Your task to perform on an android device: turn off location Image 0: 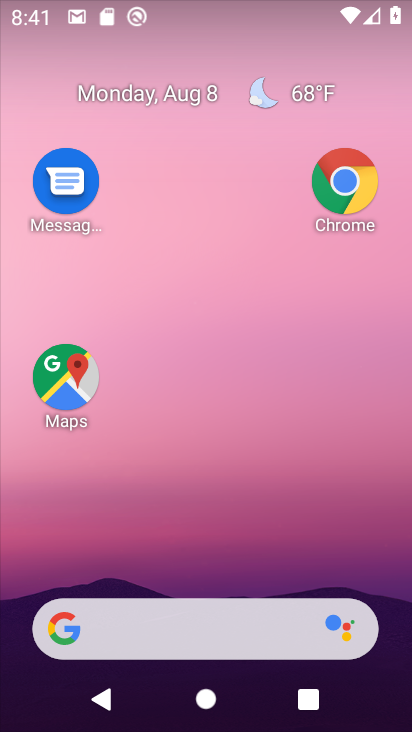
Step 0: drag from (274, 588) to (101, 74)
Your task to perform on an android device: turn off location Image 1: 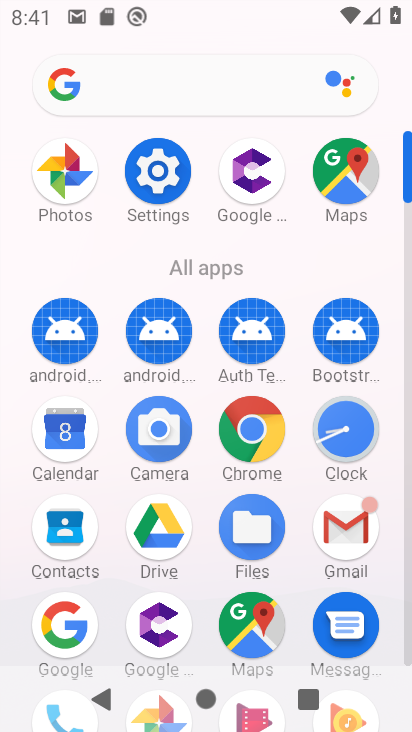
Step 1: click (158, 160)
Your task to perform on an android device: turn off location Image 2: 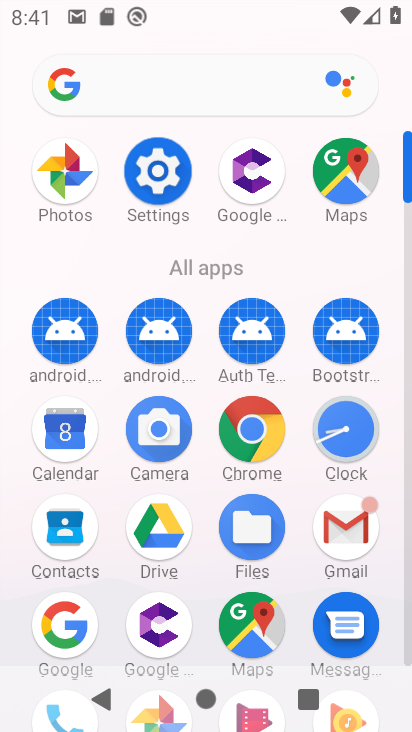
Step 2: click (158, 160)
Your task to perform on an android device: turn off location Image 3: 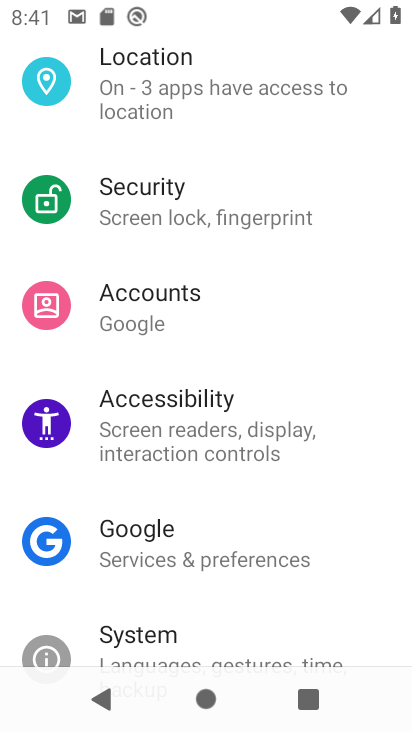
Step 3: click (232, 108)
Your task to perform on an android device: turn off location Image 4: 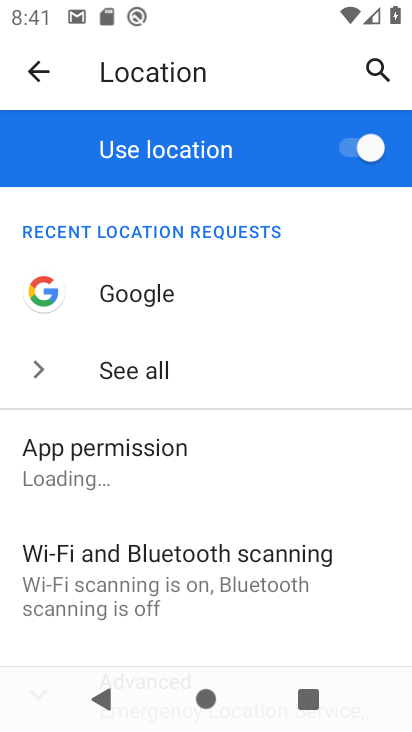
Step 4: click (356, 152)
Your task to perform on an android device: turn off location Image 5: 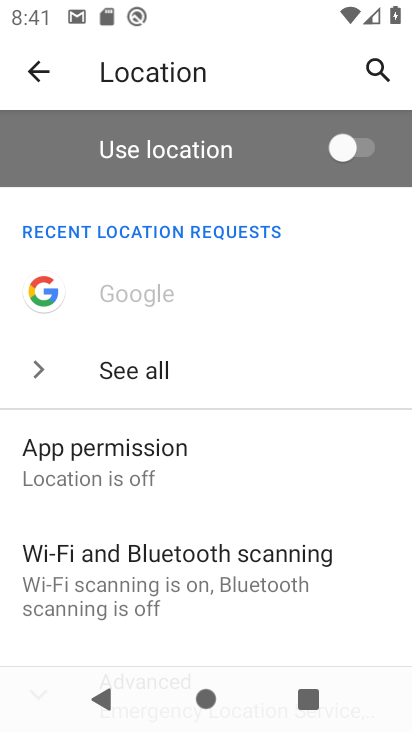
Step 5: task complete